Your task to perform on an android device: change the clock display to digital Image 0: 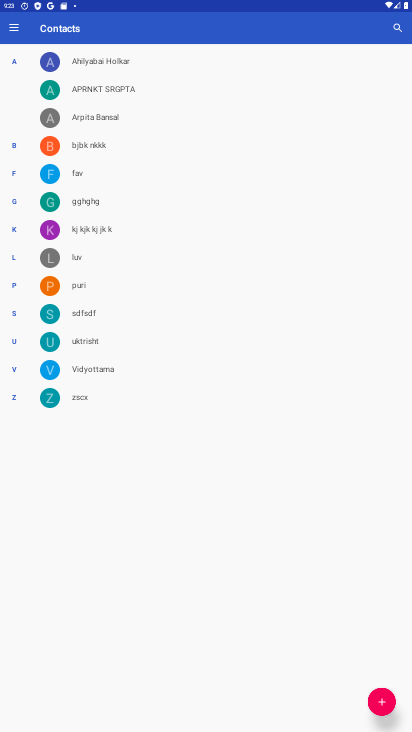
Step 0: press home button
Your task to perform on an android device: change the clock display to digital Image 1: 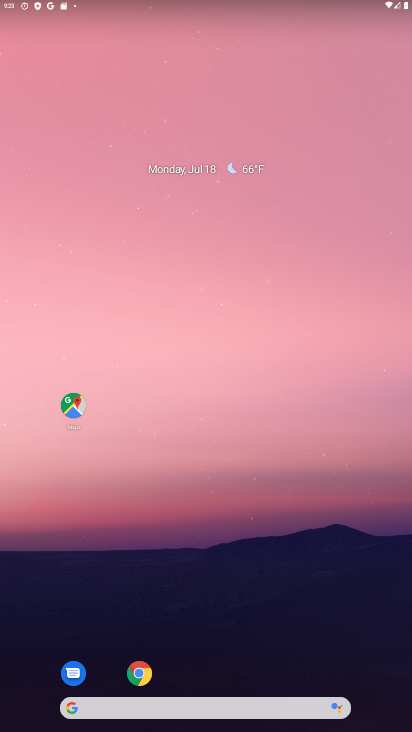
Step 1: drag from (220, 617) to (245, 80)
Your task to perform on an android device: change the clock display to digital Image 2: 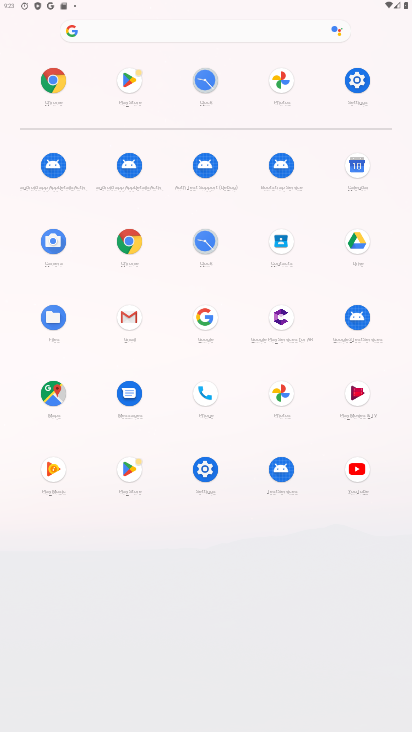
Step 2: click (205, 242)
Your task to perform on an android device: change the clock display to digital Image 3: 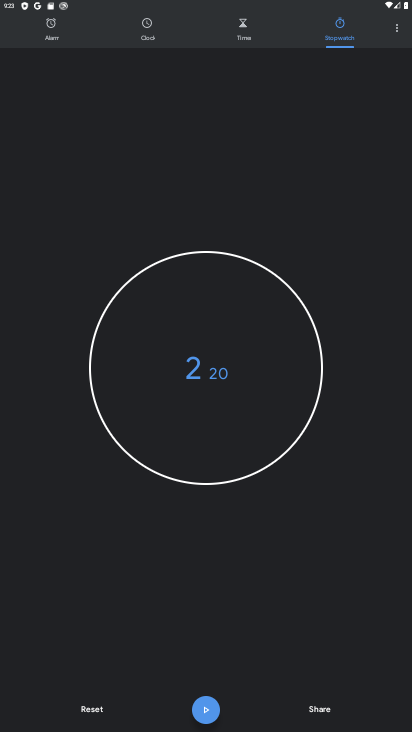
Step 3: click (397, 31)
Your task to perform on an android device: change the clock display to digital Image 4: 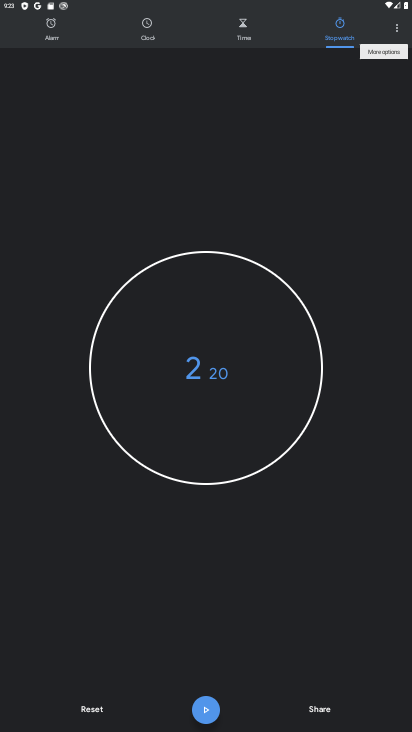
Step 4: click (390, 28)
Your task to perform on an android device: change the clock display to digital Image 5: 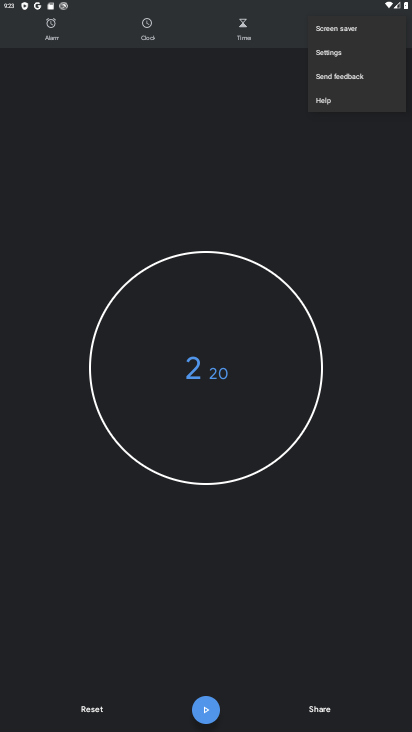
Step 5: click (338, 53)
Your task to perform on an android device: change the clock display to digital Image 6: 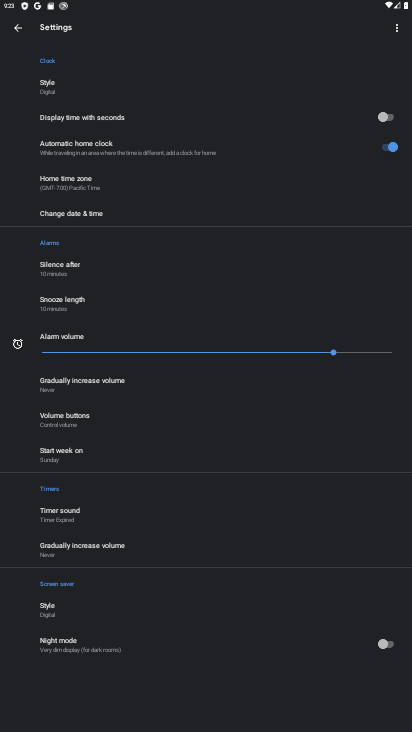
Step 6: click (73, 87)
Your task to perform on an android device: change the clock display to digital Image 7: 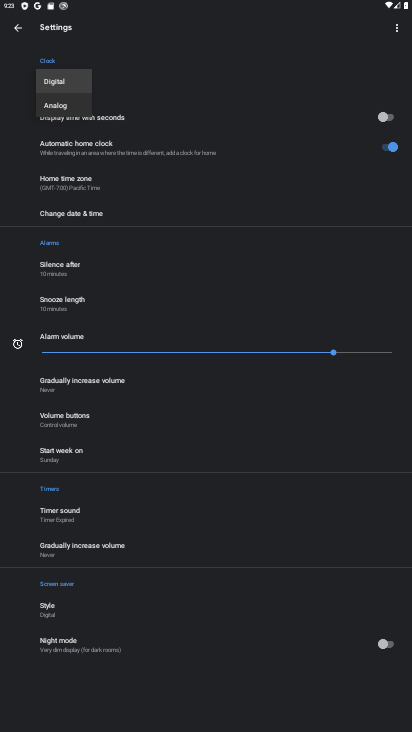
Step 7: task complete